Your task to perform on an android device: Do I have any events tomorrow? Image 0: 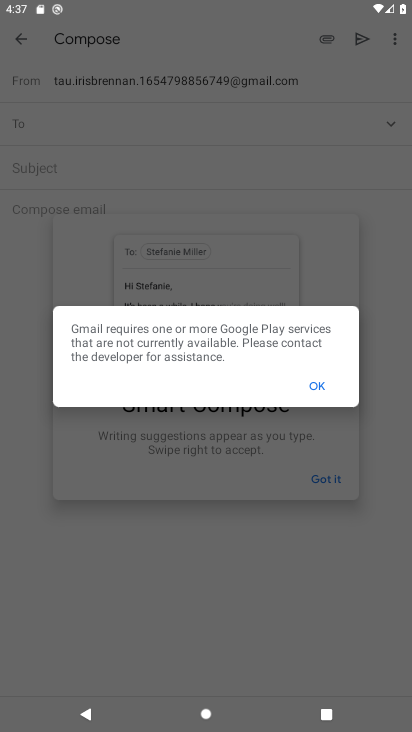
Step 0: press home button
Your task to perform on an android device: Do I have any events tomorrow? Image 1: 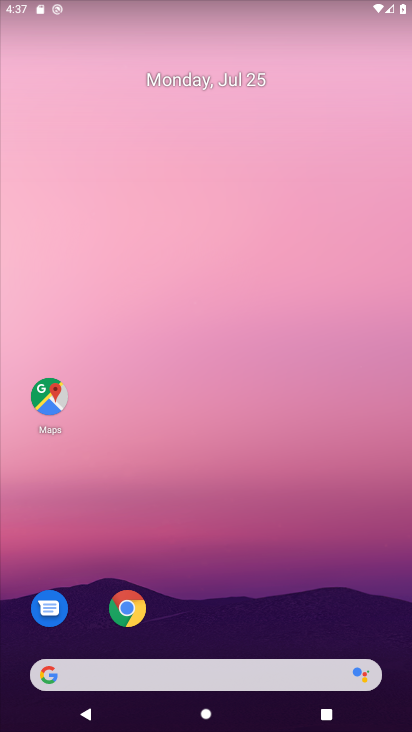
Step 1: drag from (202, 634) to (234, 306)
Your task to perform on an android device: Do I have any events tomorrow? Image 2: 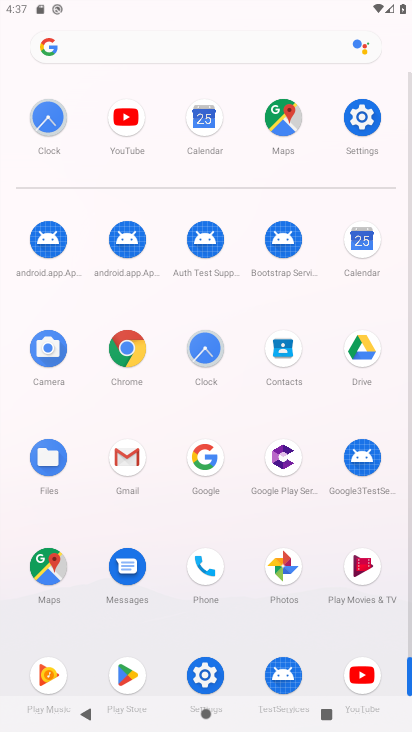
Step 2: click (366, 249)
Your task to perform on an android device: Do I have any events tomorrow? Image 3: 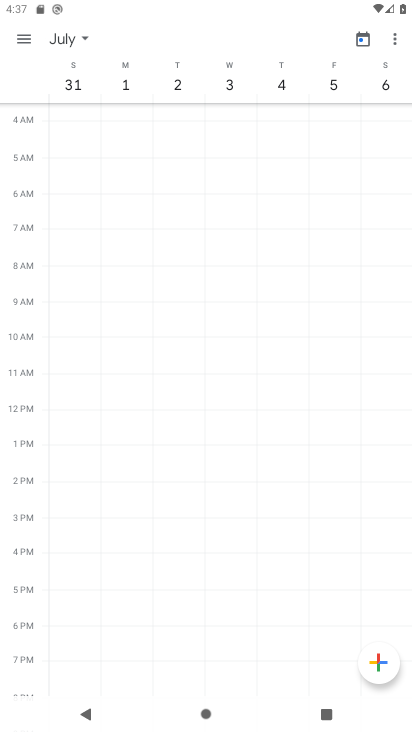
Step 3: click (62, 39)
Your task to perform on an android device: Do I have any events tomorrow? Image 4: 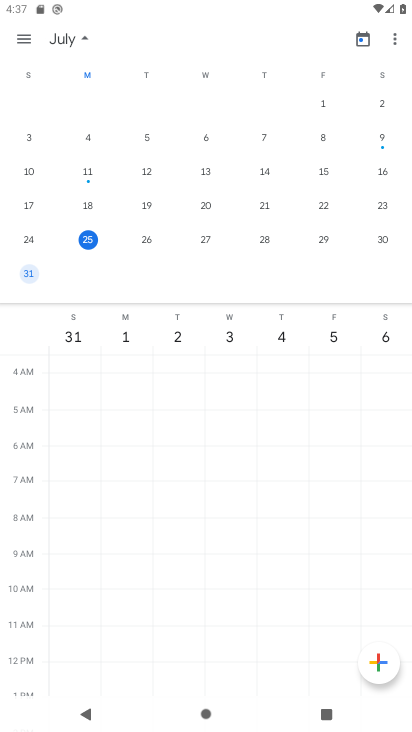
Step 4: click (80, 233)
Your task to perform on an android device: Do I have any events tomorrow? Image 5: 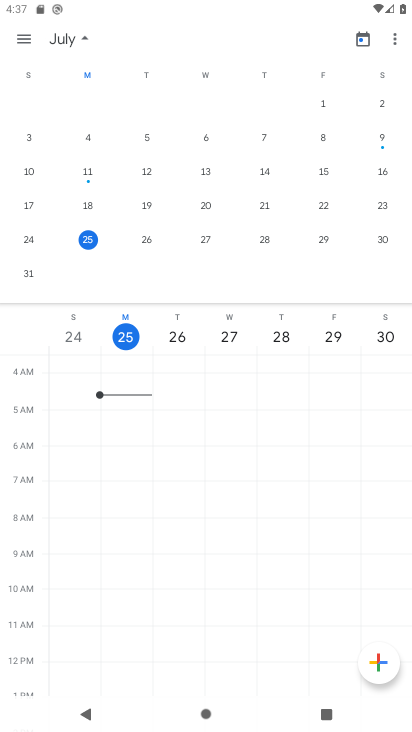
Step 5: click (24, 40)
Your task to perform on an android device: Do I have any events tomorrow? Image 6: 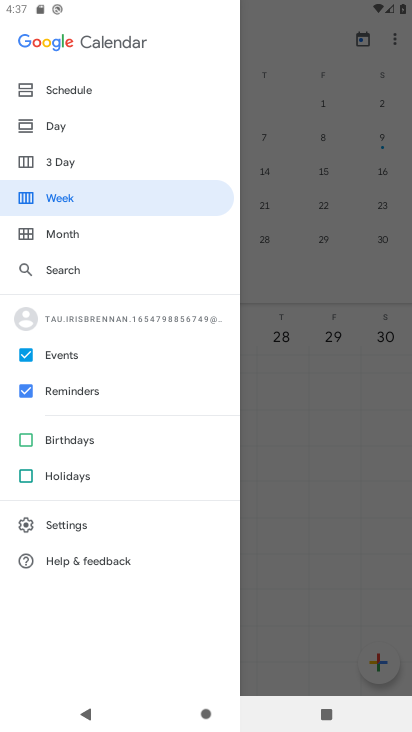
Step 6: click (71, 386)
Your task to perform on an android device: Do I have any events tomorrow? Image 7: 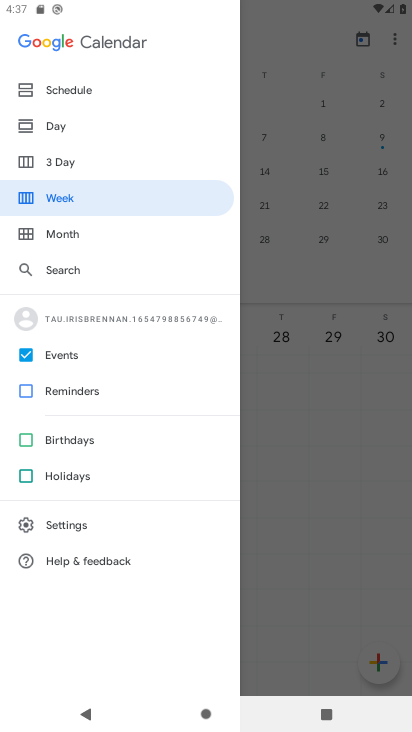
Step 7: click (66, 160)
Your task to perform on an android device: Do I have any events tomorrow? Image 8: 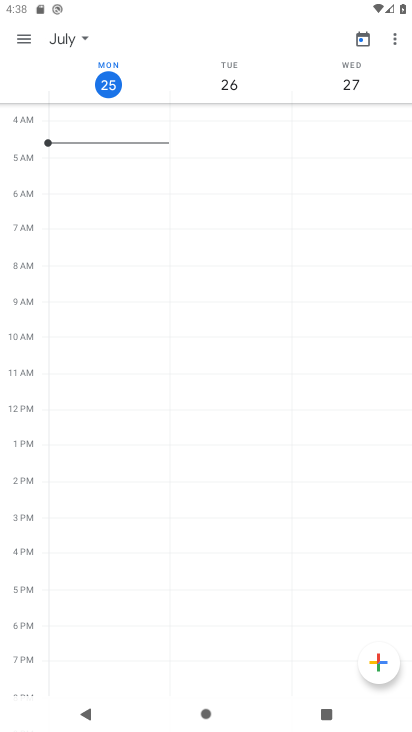
Step 8: task complete